Your task to perform on an android device: open device folders in google photos Image 0: 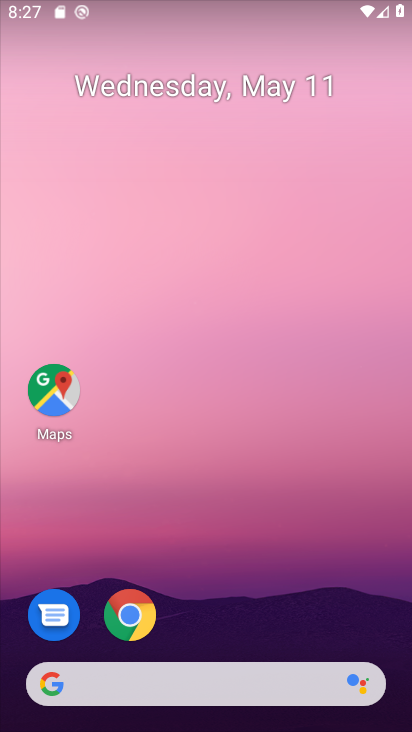
Step 0: drag from (311, 595) to (321, 85)
Your task to perform on an android device: open device folders in google photos Image 1: 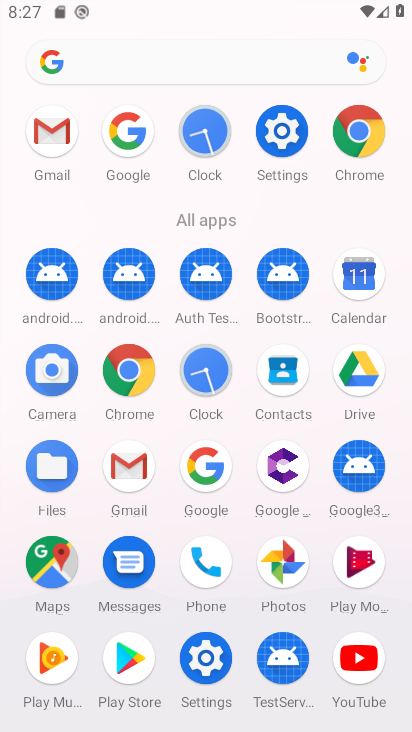
Step 1: click (294, 578)
Your task to perform on an android device: open device folders in google photos Image 2: 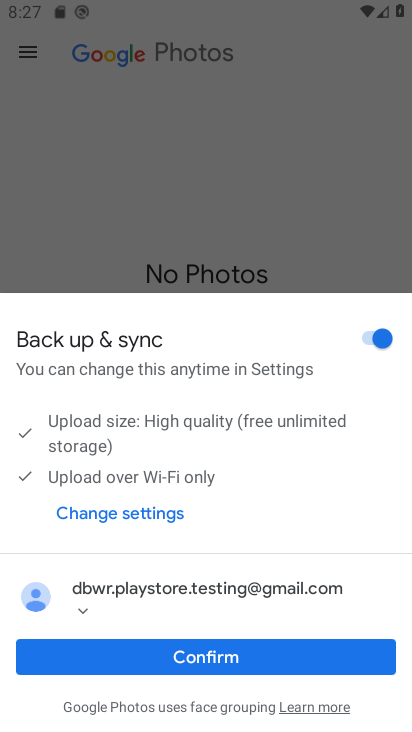
Step 2: click (205, 663)
Your task to perform on an android device: open device folders in google photos Image 3: 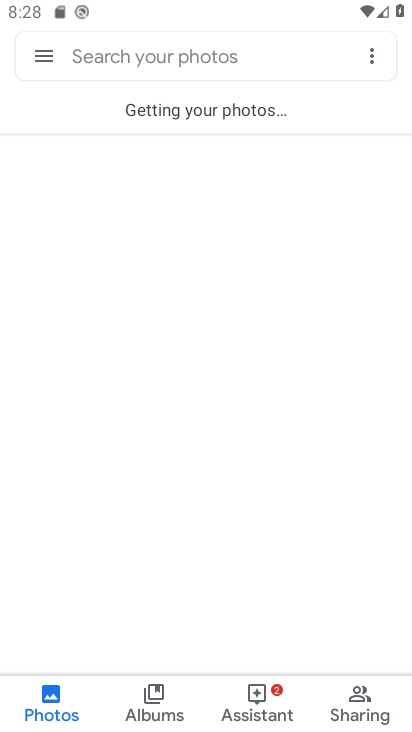
Step 3: click (224, 461)
Your task to perform on an android device: open device folders in google photos Image 4: 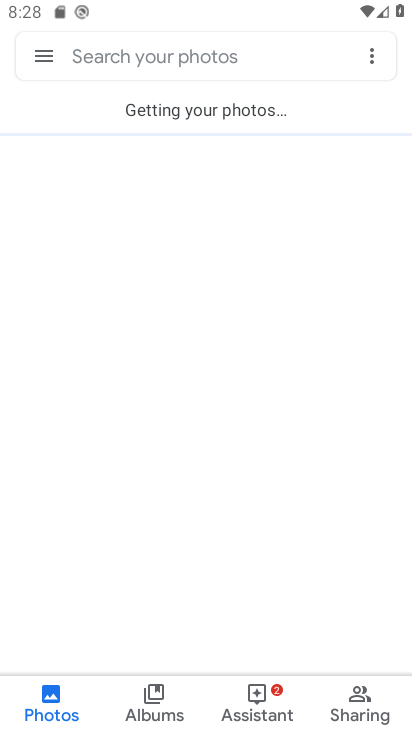
Step 4: click (41, 44)
Your task to perform on an android device: open device folders in google photos Image 5: 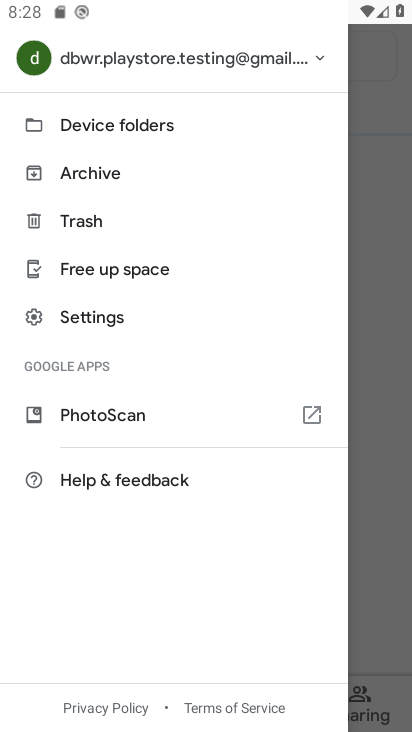
Step 5: click (167, 133)
Your task to perform on an android device: open device folders in google photos Image 6: 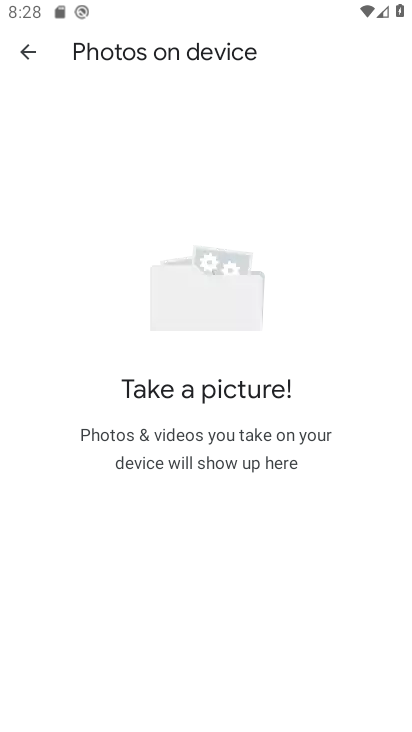
Step 6: task complete